Your task to perform on an android device: Go to Google maps Image 0: 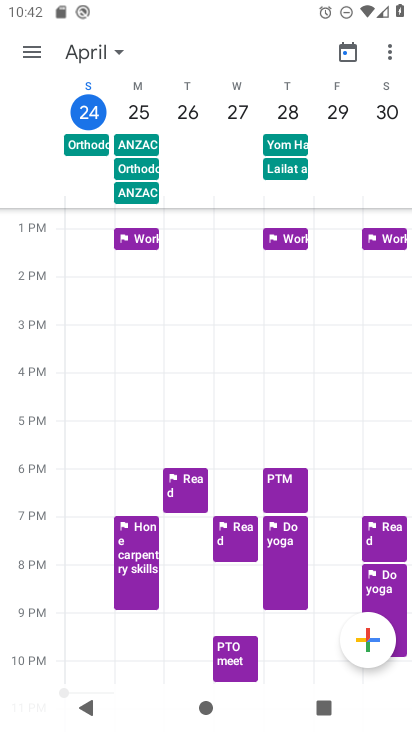
Step 0: press home button
Your task to perform on an android device: Go to Google maps Image 1: 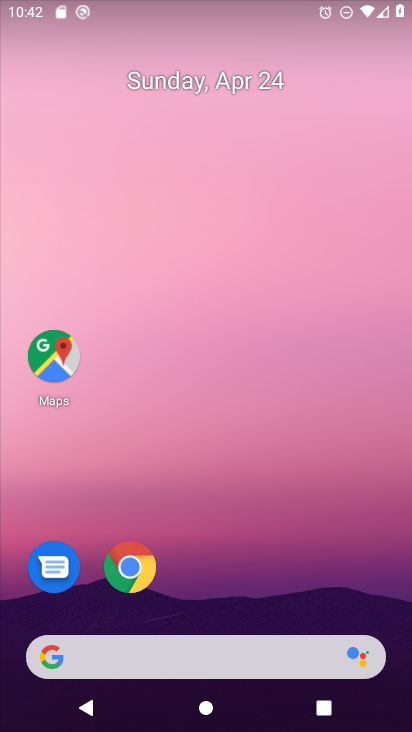
Step 1: click (47, 359)
Your task to perform on an android device: Go to Google maps Image 2: 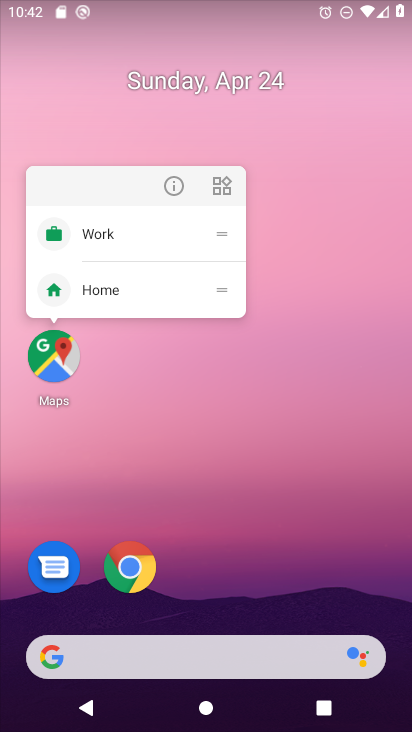
Step 2: click (170, 187)
Your task to perform on an android device: Go to Google maps Image 3: 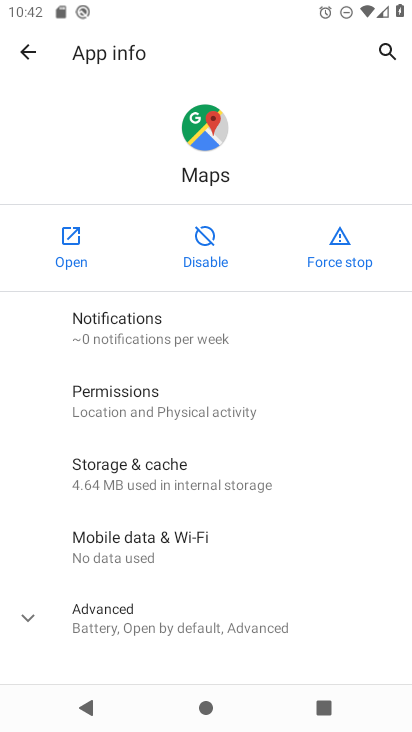
Step 3: click (81, 254)
Your task to perform on an android device: Go to Google maps Image 4: 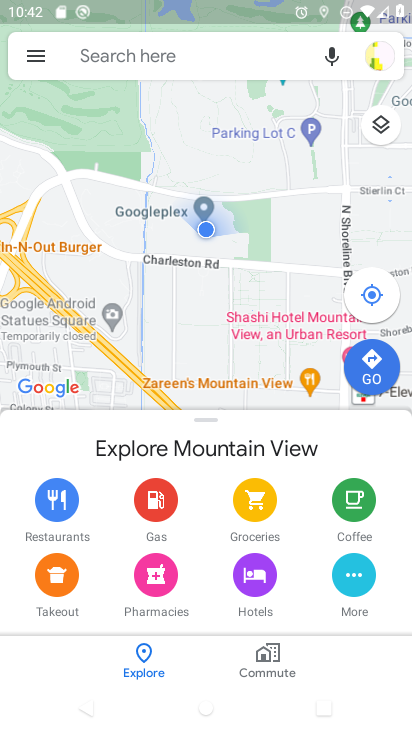
Step 4: click (152, 56)
Your task to perform on an android device: Go to Google maps Image 5: 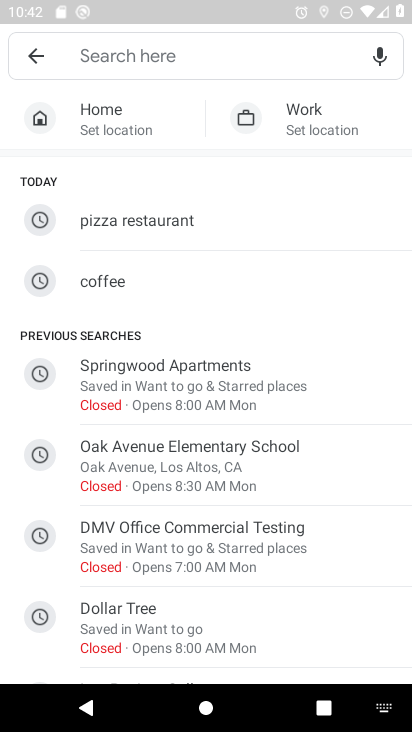
Step 5: task complete